Your task to perform on an android device: Go to Android settings Image 0: 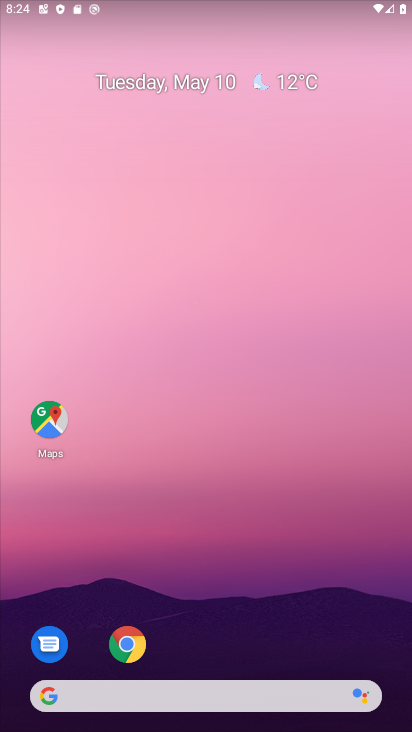
Step 0: drag from (392, 668) to (311, 324)
Your task to perform on an android device: Go to Android settings Image 1: 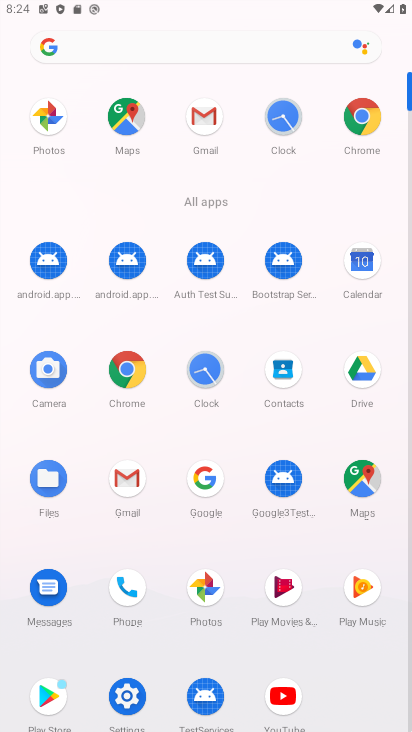
Step 1: click (126, 697)
Your task to perform on an android device: Go to Android settings Image 2: 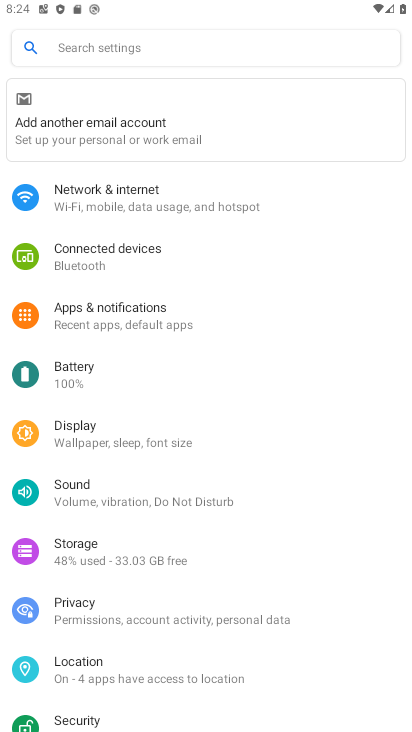
Step 2: drag from (286, 643) to (299, 147)
Your task to perform on an android device: Go to Android settings Image 3: 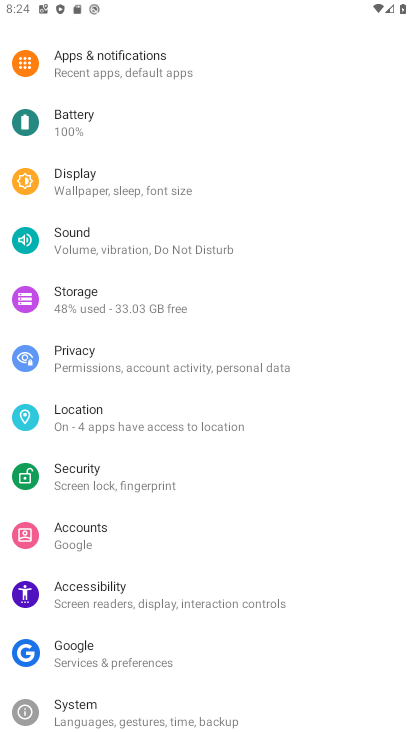
Step 3: drag from (290, 643) to (282, 169)
Your task to perform on an android device: Go to Android settings Image 4: 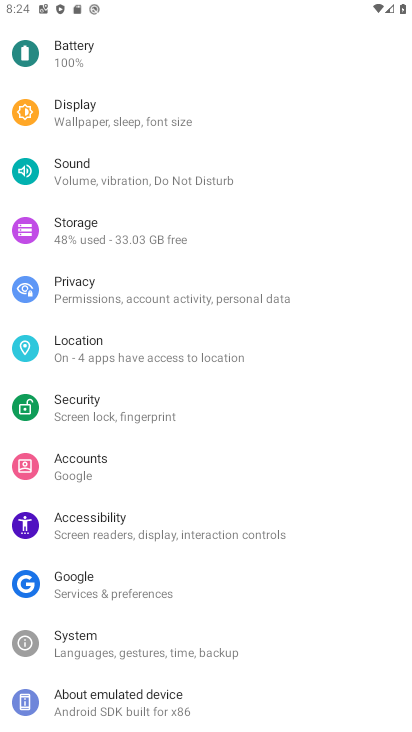
Step 4: click (92, 691)
Your task to perform on an android device: Go to Android settings Image 5: 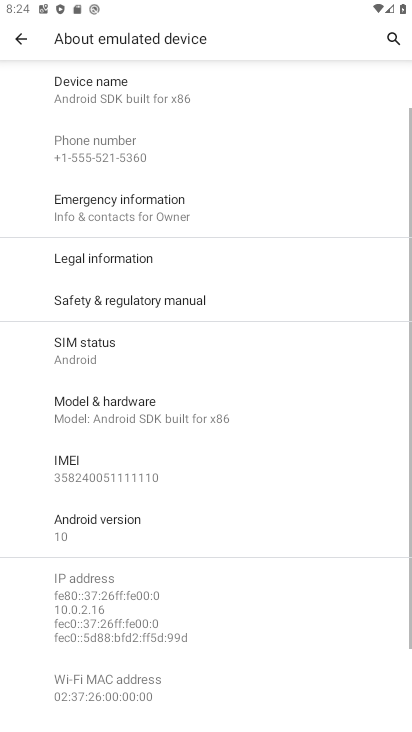
Step 5: task complete